Your task to perform on an android device: check out phone information Image 0: 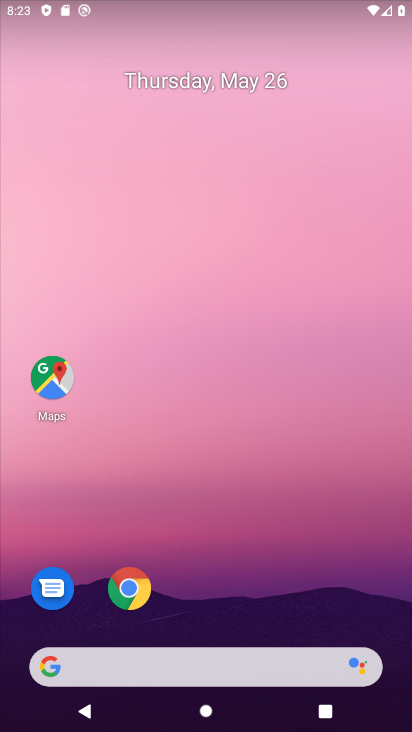
Step 0: drag from (379, 605) to (293, 58)
Your task to perform on an android device: check out phone information Image 1: 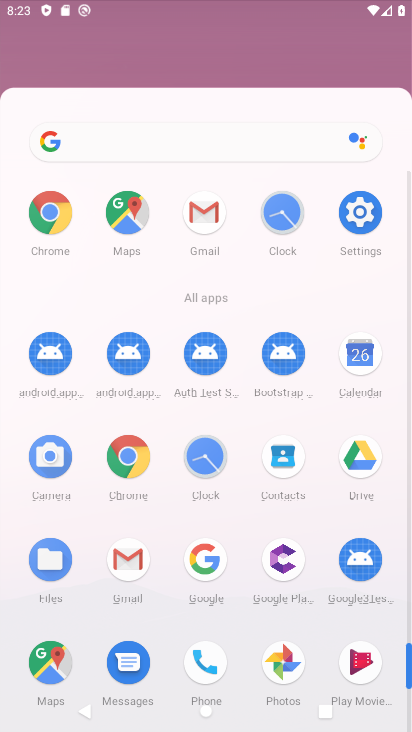
Step 1: click (293, 58)
Your task to perform on an android device: check out phone information Image 2: 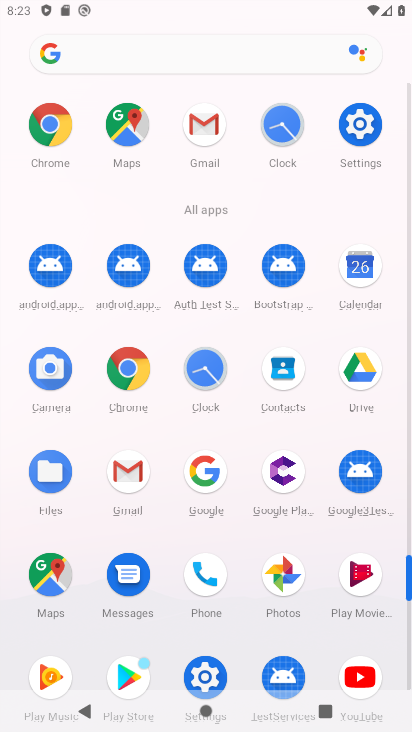
Step 2: click (411, 682)
Your task to perform on an android device: check out phone information Image 3: 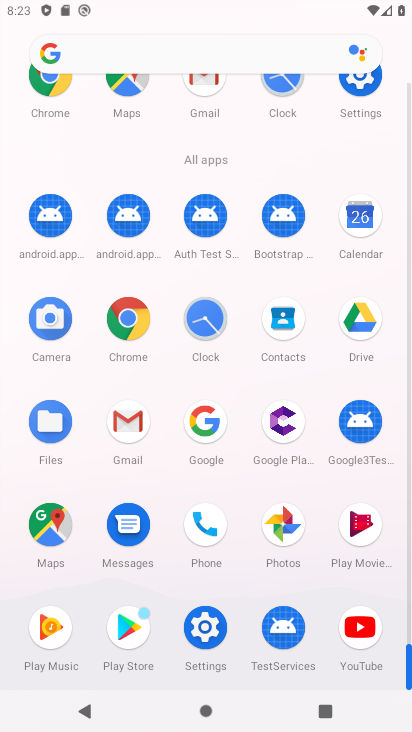
Step 3: click (207, 624)
Your task to perform on an android device: check out phone information Image 4: 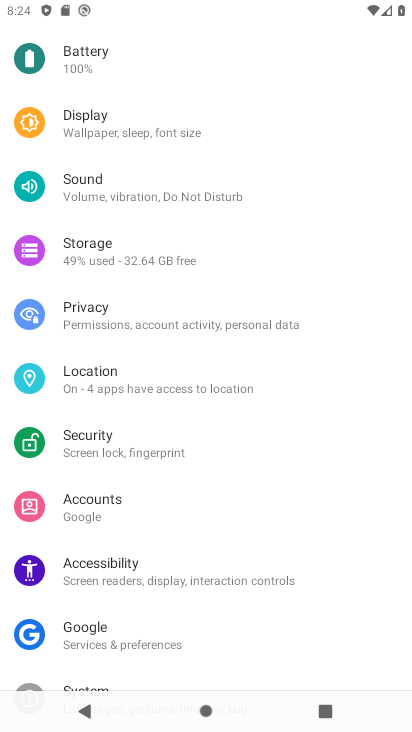
Step 4: drag from (310, 589) to (334, 168)
Your task to perform on an android device: check out phone information Image 5: 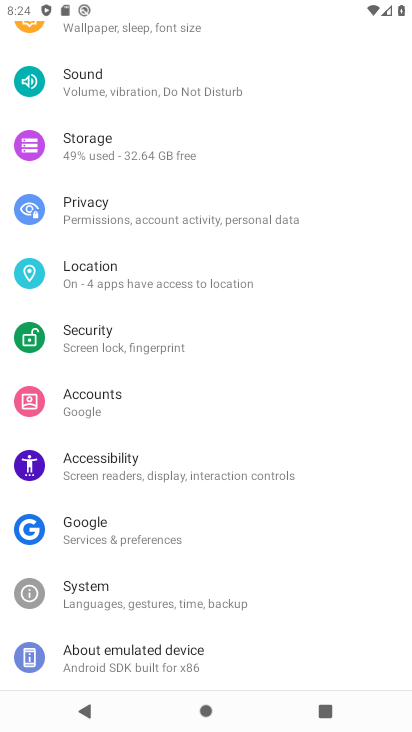
Step 5: click (129, 645)
Your task to perform on an android device: check out phone information Image 6: 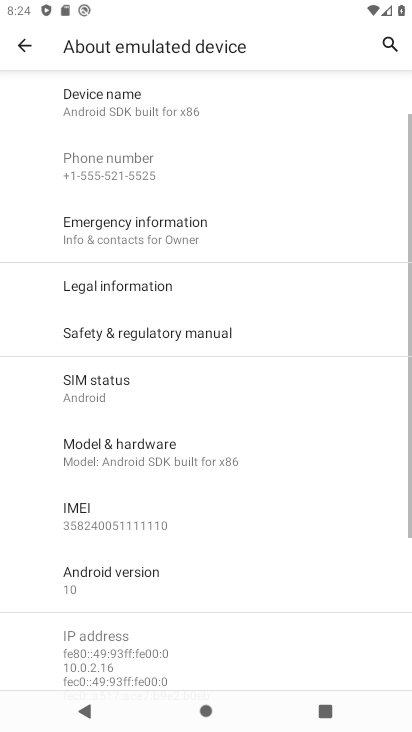
Step 6: task complete